Your task to perform on an android device: What is the recent news? Image 0: 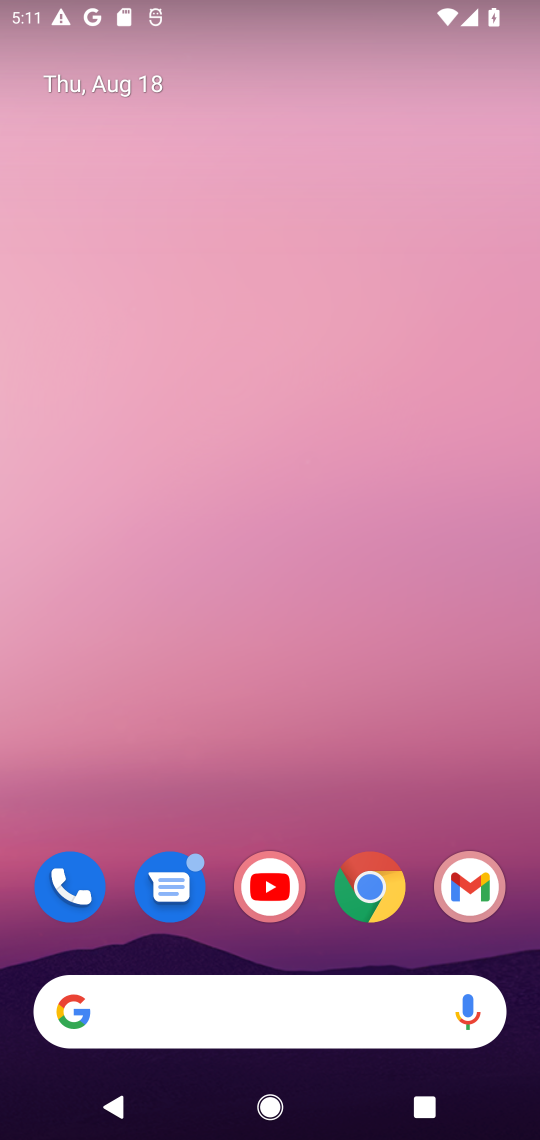
Step 0: click (406, 109)
Your task to perform on an android device: What is the recent news? Image 1: 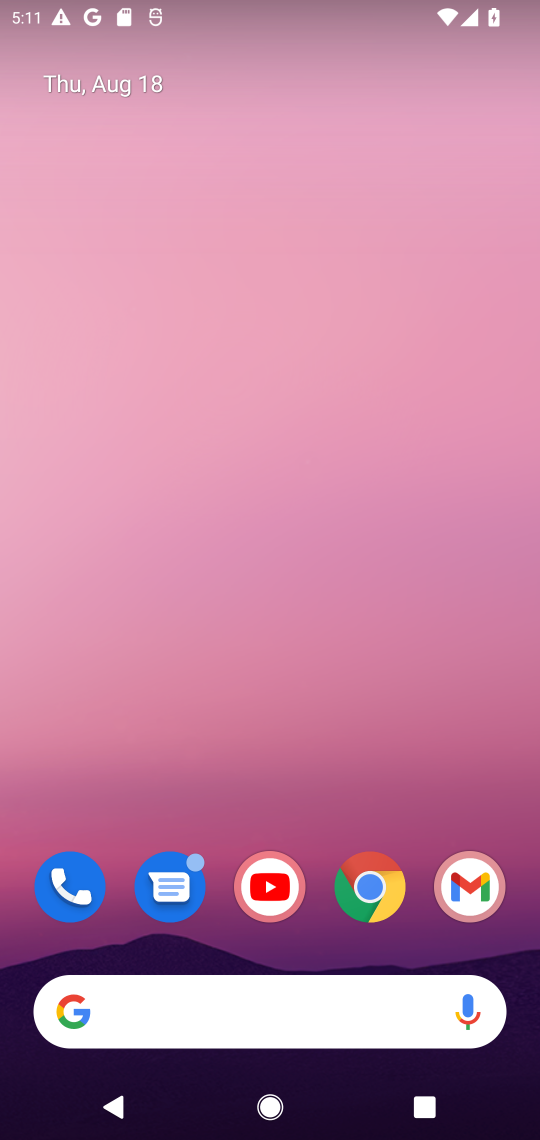
Step 1: task complete